Your task to perform on an android device: Open Maps and search for coffee Image 0: 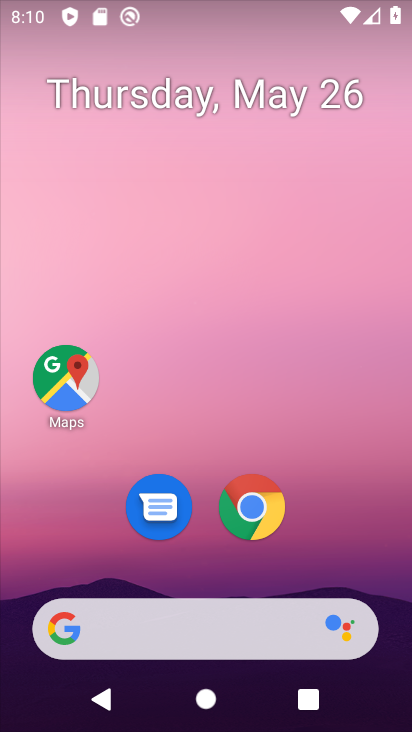
Step 0: click (62, 366)
Your task to perform on an android device: Open Maps and search for coffee Image 1: 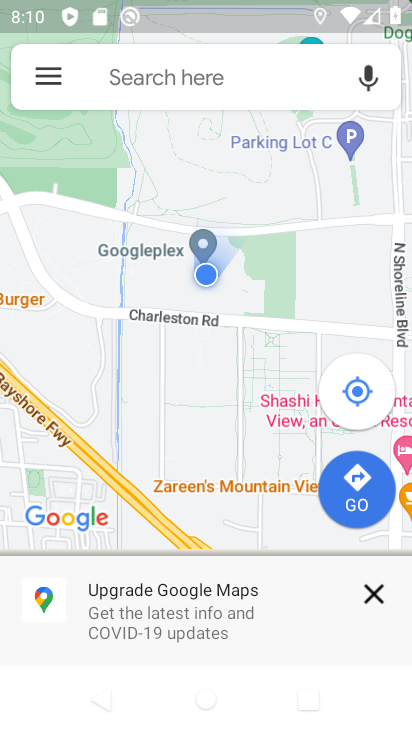
Step 1: click (175, 79)
Your task to perform on an android device: Open Maps and search for coffee Image 2: 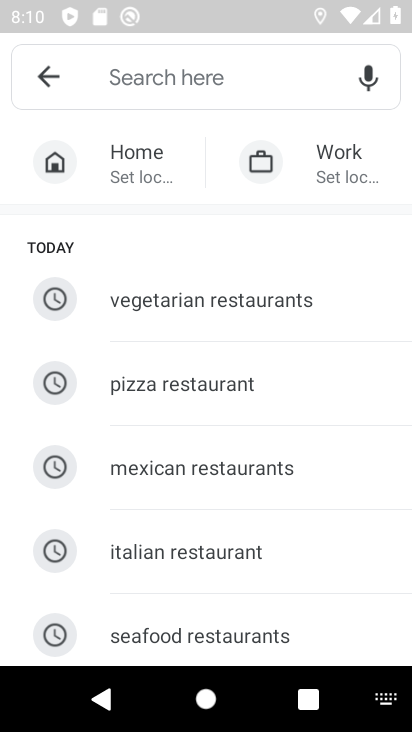
Step 2: type "coffee"
Your task to perform on an android device: Open Maps and search for coffee Image 3: 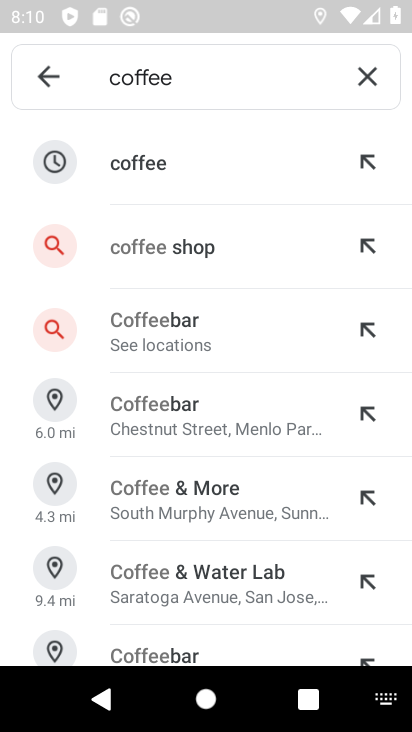
Step 3: click (177, 152)
Your task to perform on an android device: Open Maps and search for coffee Image 4: 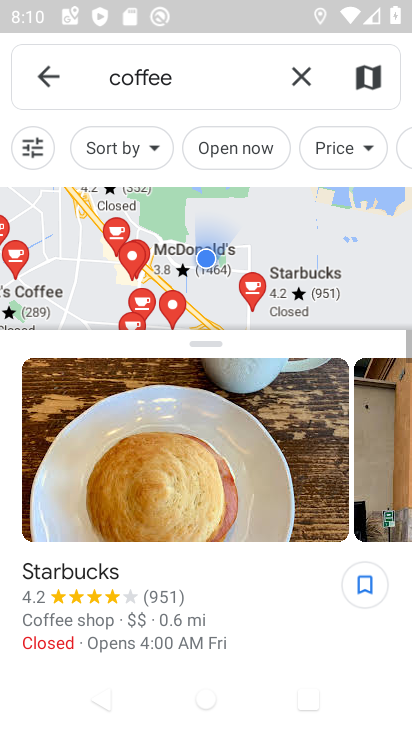
Step 4: task complete